Your task to perform on an android device: allow notifications from all sites in the chrome app Image 0: 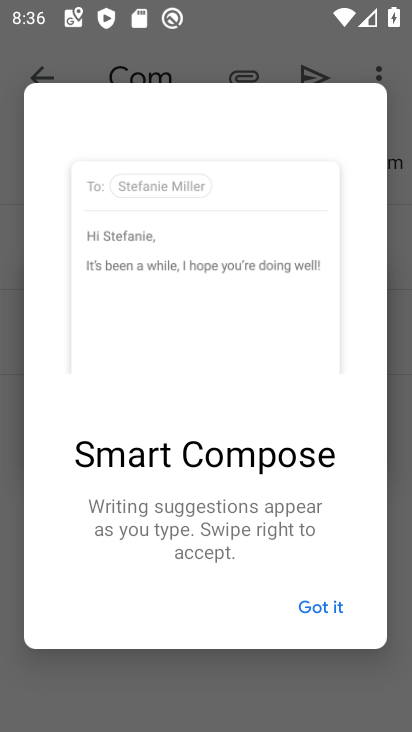
Step 0: press home button
Your task to perform on an android device: allow notifications from all sites in the chrome app Image 1: 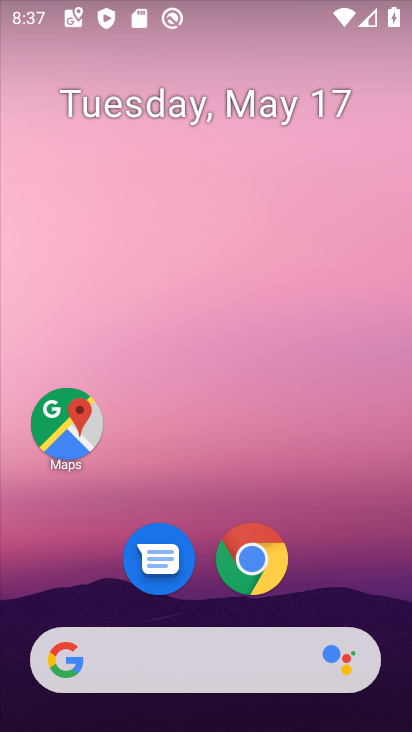
Step 1: click (262, 565)
Your task to perform on an android device: allow notifications from all sites in the chrome app Image 2: 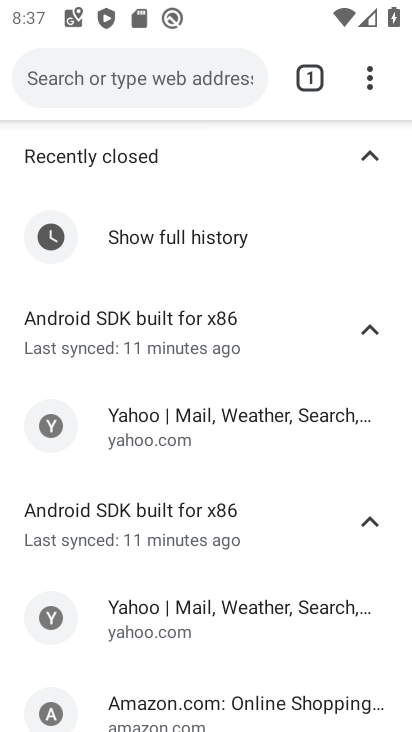
Step 2: click (380, 71)
Your task to perform on an android device: allow notifications from all sites in the chrome app Image 3: 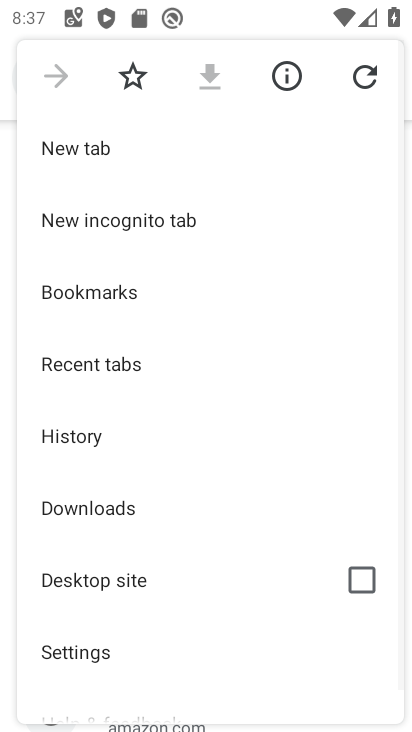
Step 3: click (102, 652)
Your task to perform on an android device: allow notifications from all sites in the chrome app Image 4: 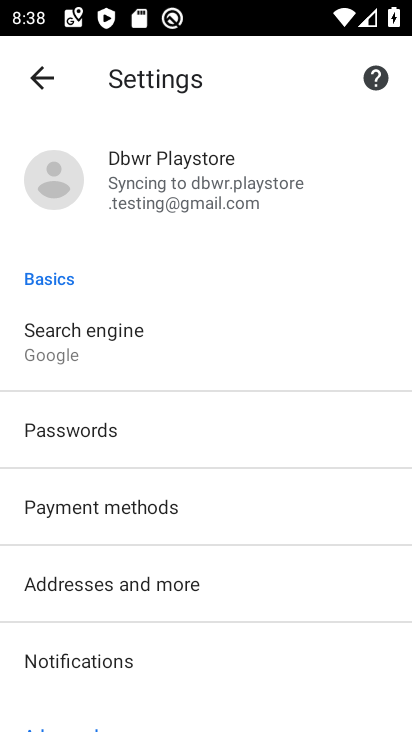
Step 4: click (208, 655)
Your task to perform on an android device: allow notifications from all sites in the chrome app Image 5: 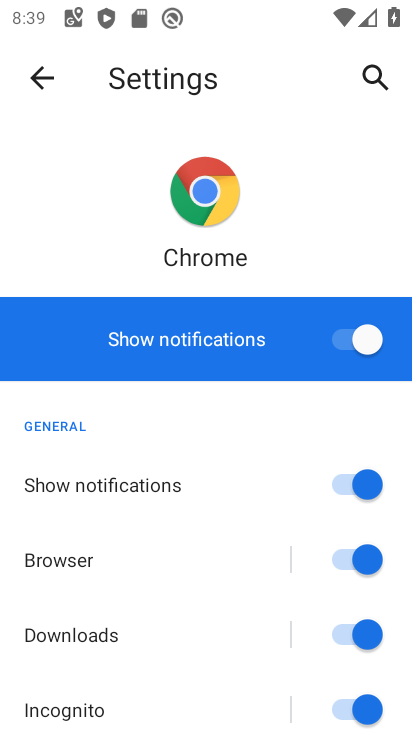
Step 5: task complete